Your task to perform on an android device: Set the phone to "Do not disturb". Image 0: 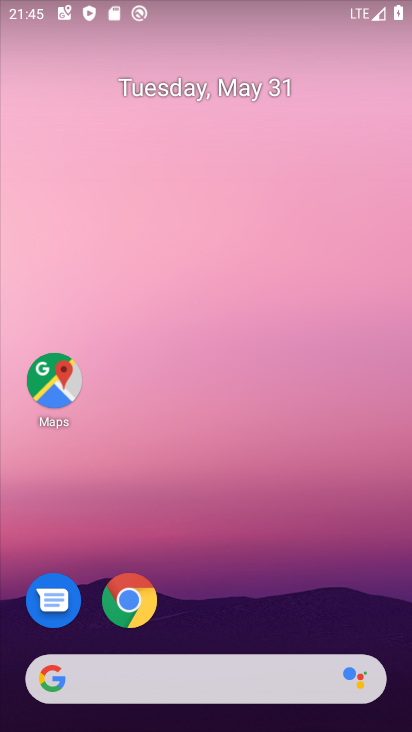
Step 0: drag from (192, 15) to (194, 533)
Your task to perform on an android device: Set the phone to "Do not disturb". Image 1: 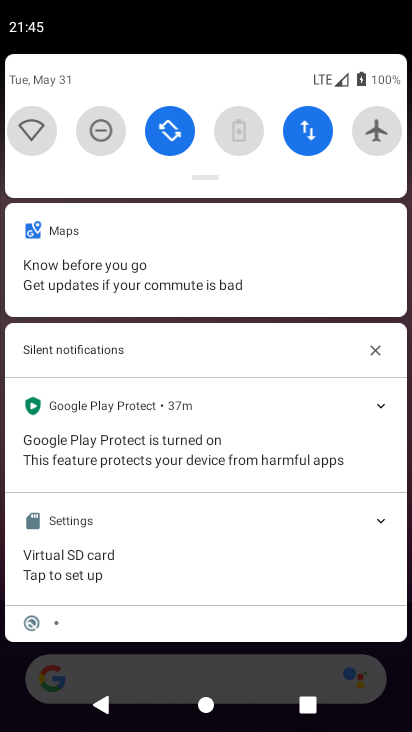
Step 1: click (104, 124)
Your task to perform on an android device: Set the phone to "Do not disturb". Image 2: 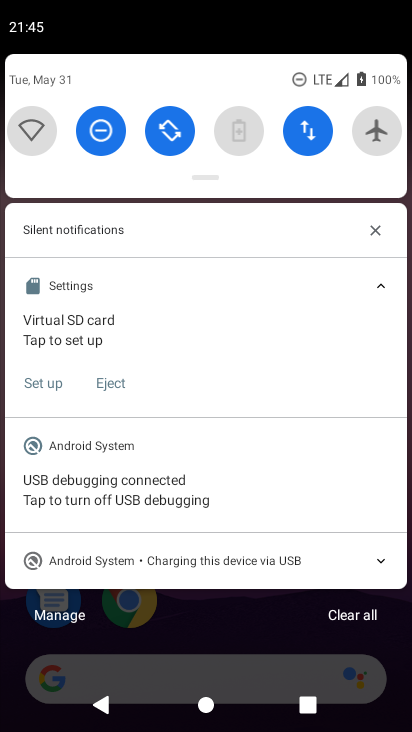
Step 2: task complete